Your task to perform on an android device: open chrome and create a bookmark for the current page Image 0: 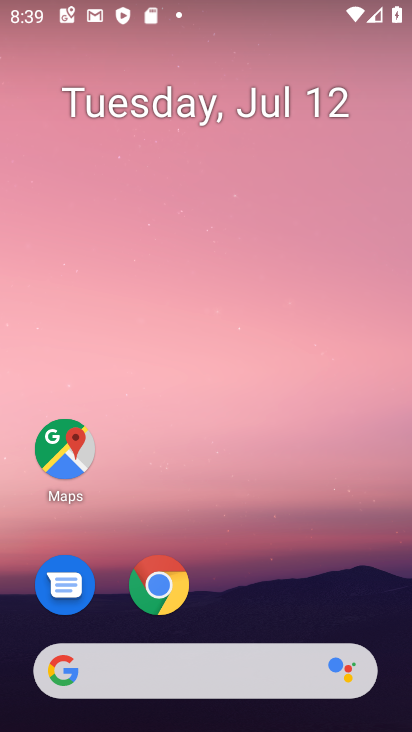
Step 0: click (180, 581)
Your task to perform on an android device: open chrome and create a bookmark for the current page Image 1: 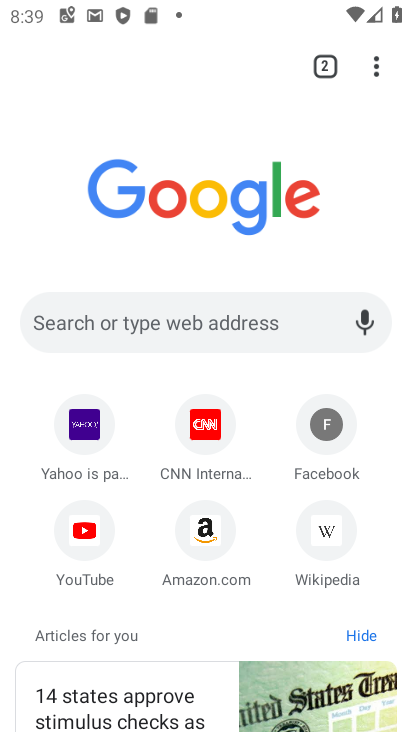
Step 1: click (374, 68)
Your task to perform on an android device: open chrome and create a bookmark for the current page Image 2: 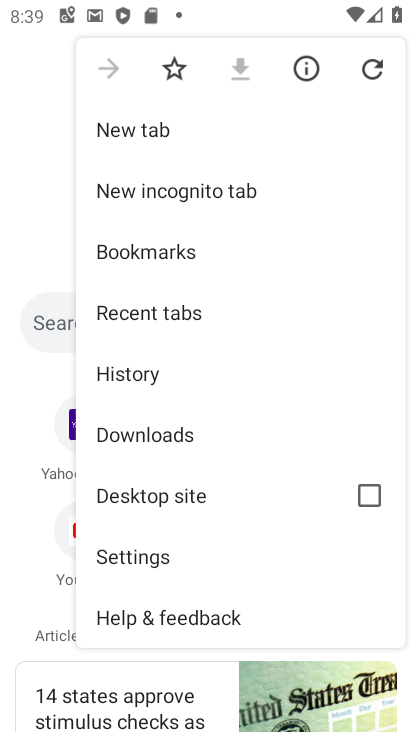
Step 2: click (173, 62)
Your task to perform on an android device: open chrome and create a bookmark for the current page Image 3: 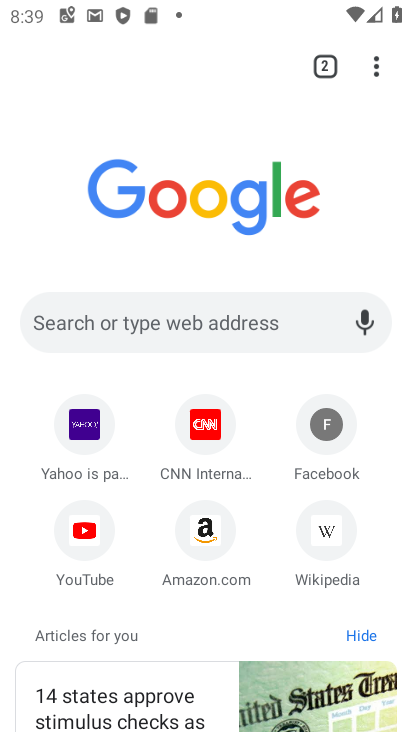
Step 3: task complete